Your task to perform on an android device: change the clock display to show seconds Image 0: 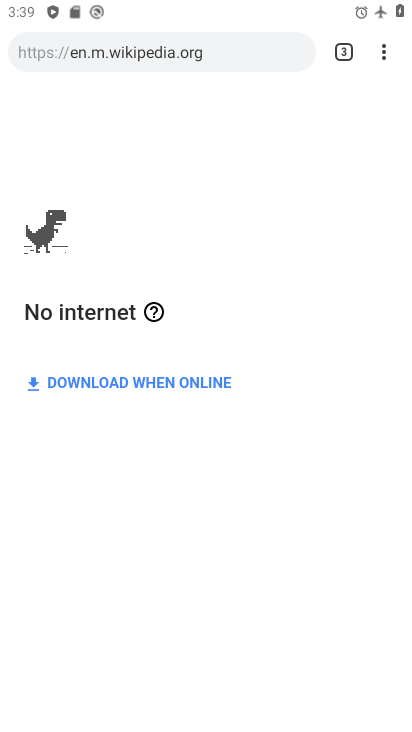
Step 0: press home button
Your task to perform on an android device: change the clock display to show seconds Image 1: 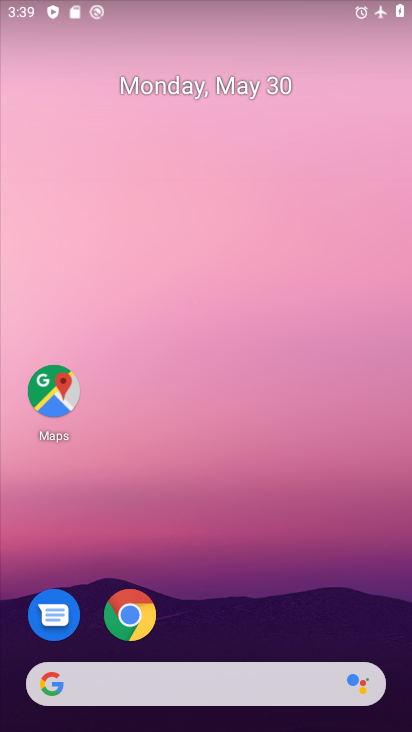
Step 1: drag from (265, 581) to (330, 34)
Your task to perform on an android device: change the clock display to show seconds Image 2: 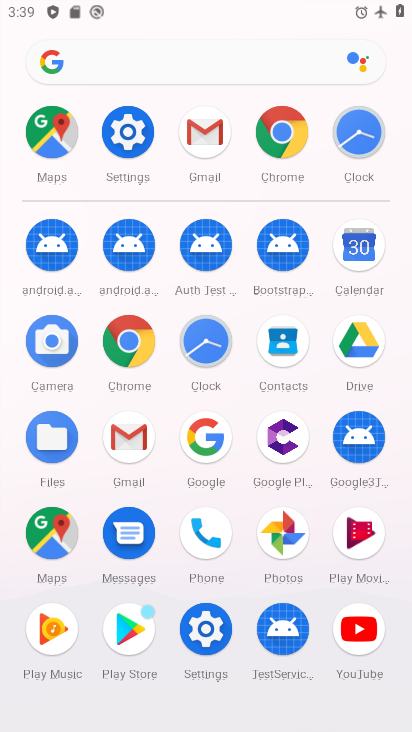
Step 2: click (362, 130)
Your task to perform on an android device: change the clock display to show seconds Image 3: 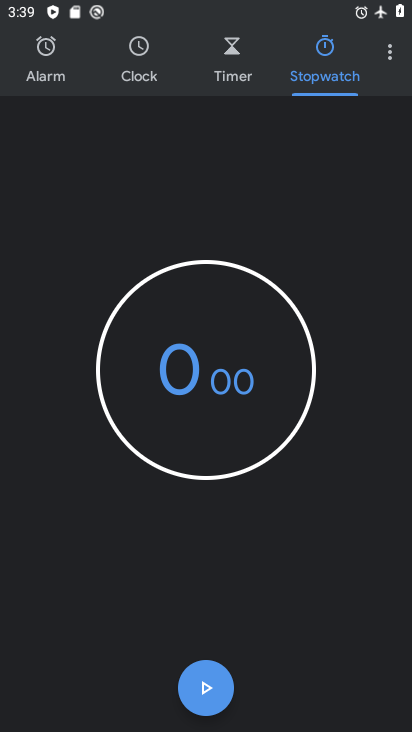
Step 3: click (380, 47)
Your task to perform on an android device: change the clock display to show seconds Image 4: 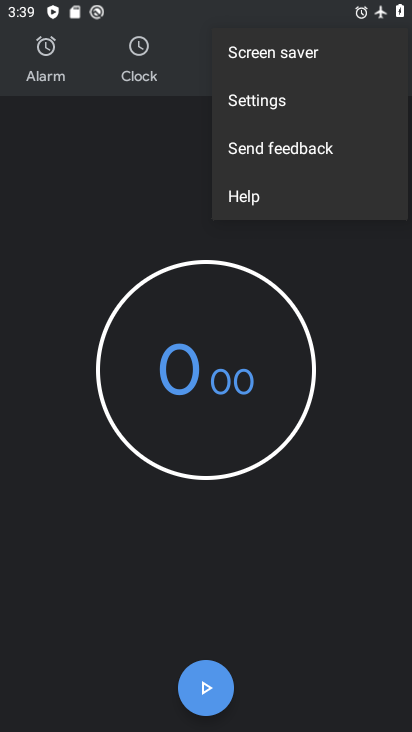
Step 4: click (351, 97)
Your task to perform on an android device: change the clock display to show seconds Image 5: 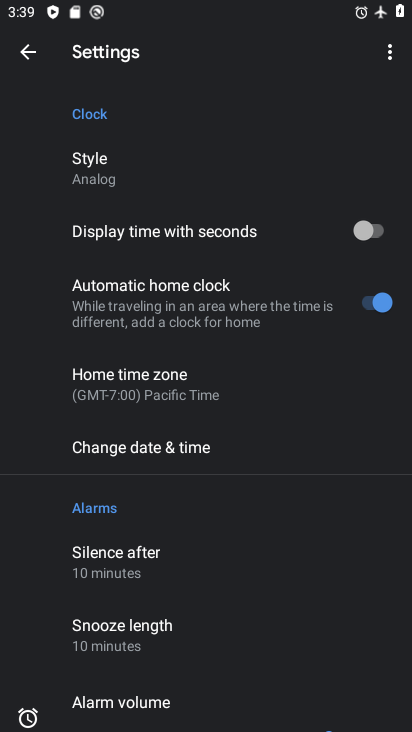
Step 5: click (376, 226)
Your task to perform on an android device: change the clock display to show seconds Image 6: 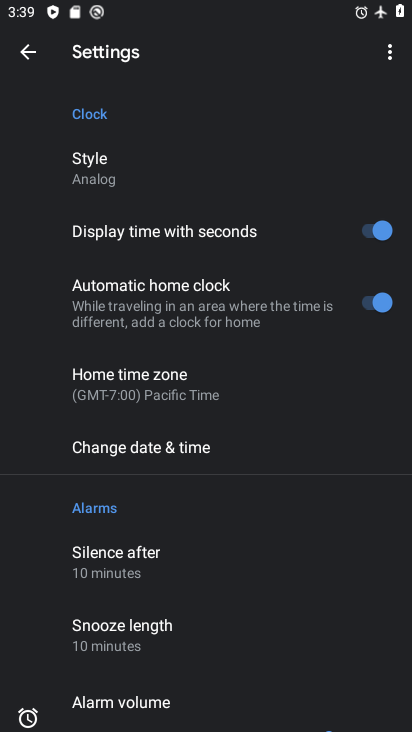
Step 6: task complete